Your task to perform on an android device: Search for pizza restaurants on Maps Image 0: 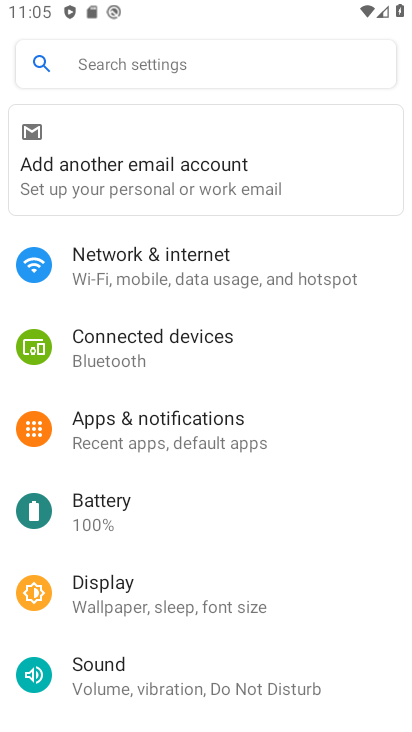
Step 0: press home button
Your task to perform on an android device: Search for pizza restaurants on Maps Image 1: 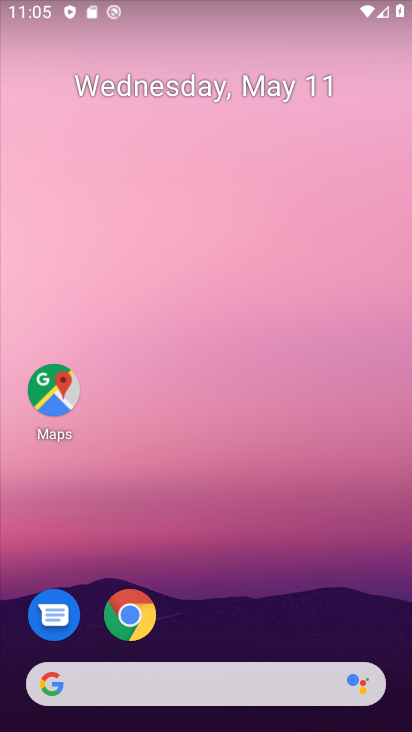
Step 1: click (53, 393)
Your task to perform on an android device: Search for pizza restaurants on Maps Image 2: 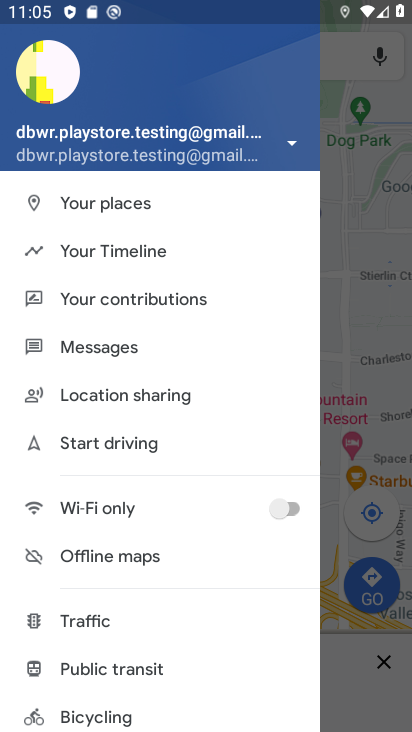
Step 2: click (347, 292)
Your task to perform on an android device: Search for pizza restaurants on Maps Image 3: 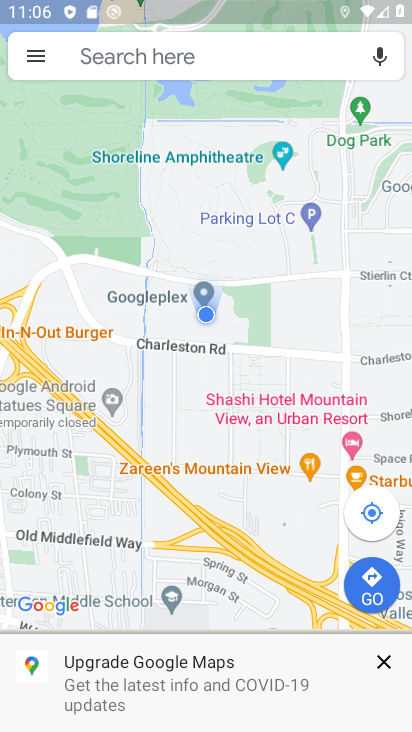
Step 3: click (156, 58)
Your task to perform on an android device: Search for pizza restaurants on Maps Image 4: 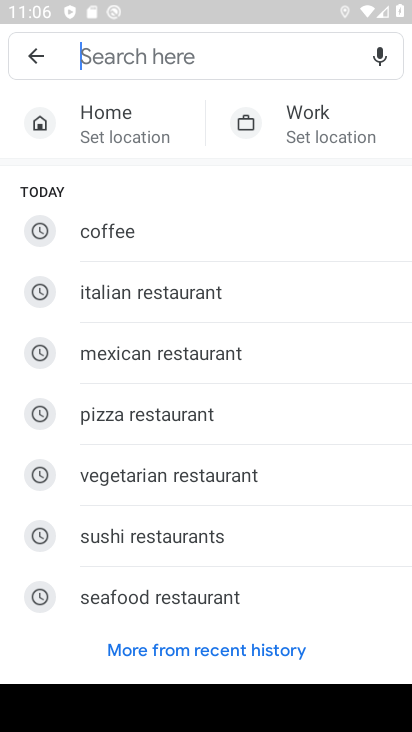
Step 4: click (178, 415)
Your task to perform on an android device: Search for pizza restaurants on Maps Image 5: 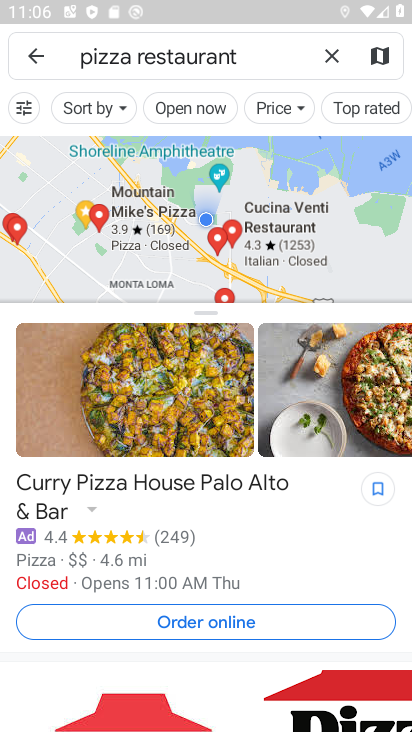
Step 5: task complete